Your task to perform on an android device: Open maps Image 0: 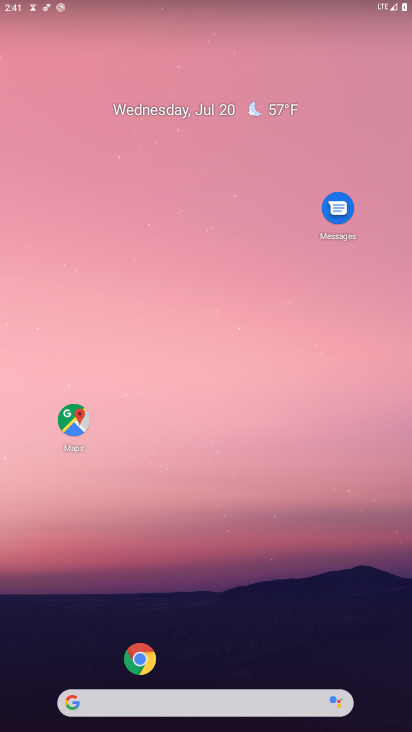
Step 0: drag from (24, 685) to (313, 227)
Your task to perform on an android device: Open maps Image 1: 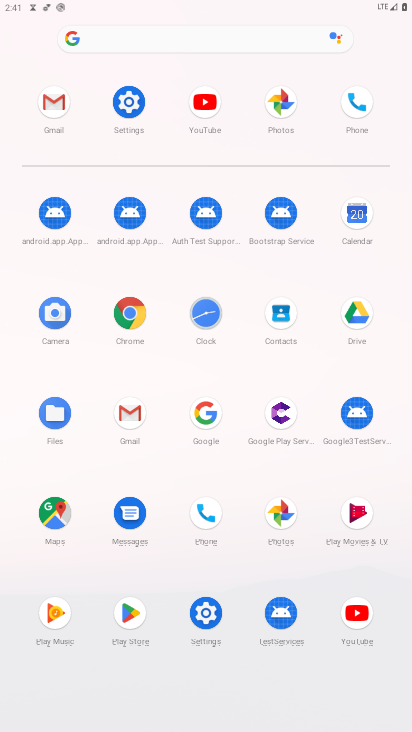
Step 1: click (69, 514)
Your task to perform on an android device: Open maps Image 2: 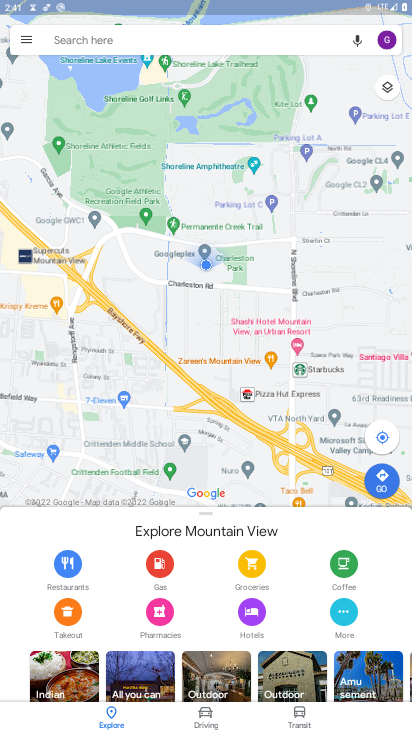
Step 2: click (62, 43)
Your task to perform on an android device: Open maps Image 3: 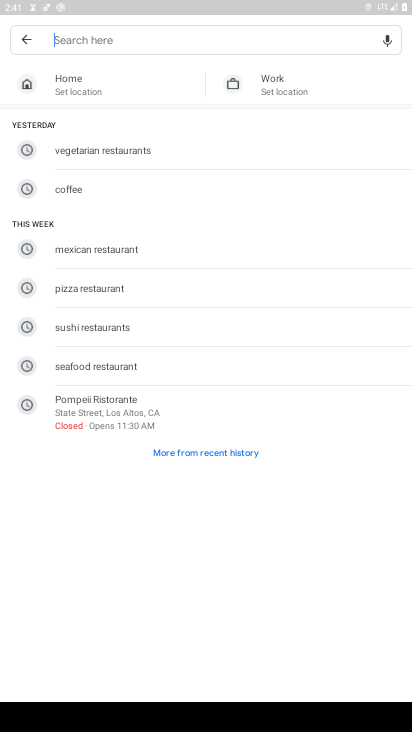
Step 3: click (21, 44)
Your task to perform on an android device: Open maps Image 4: 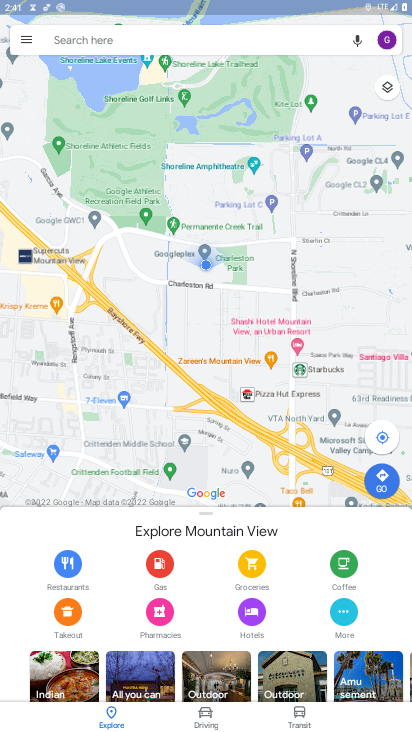
Step 4: task complete